Your task to perform on an android device: Open the settings Image 0: 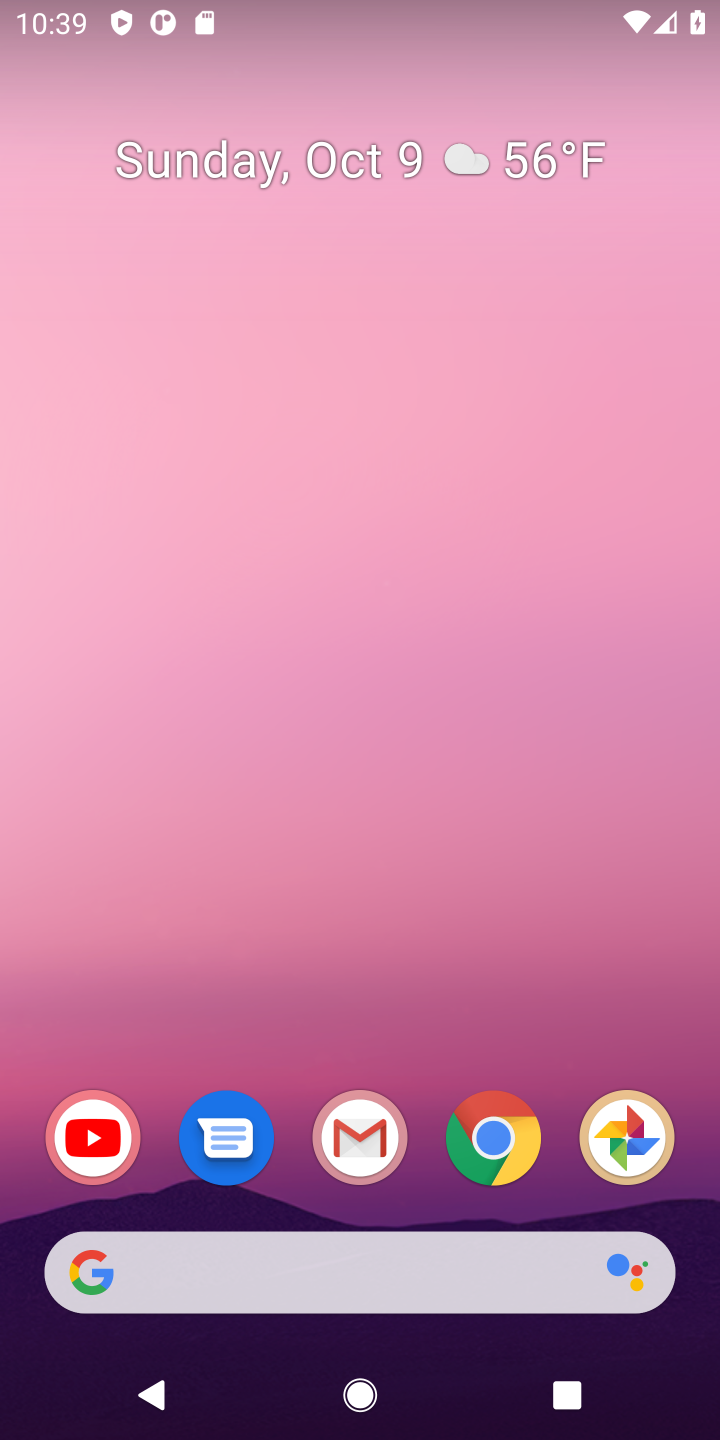
Step 0: drag from (418, 992) to (670, 24)
Your task to perform on an android device: Open the settings Image 1: 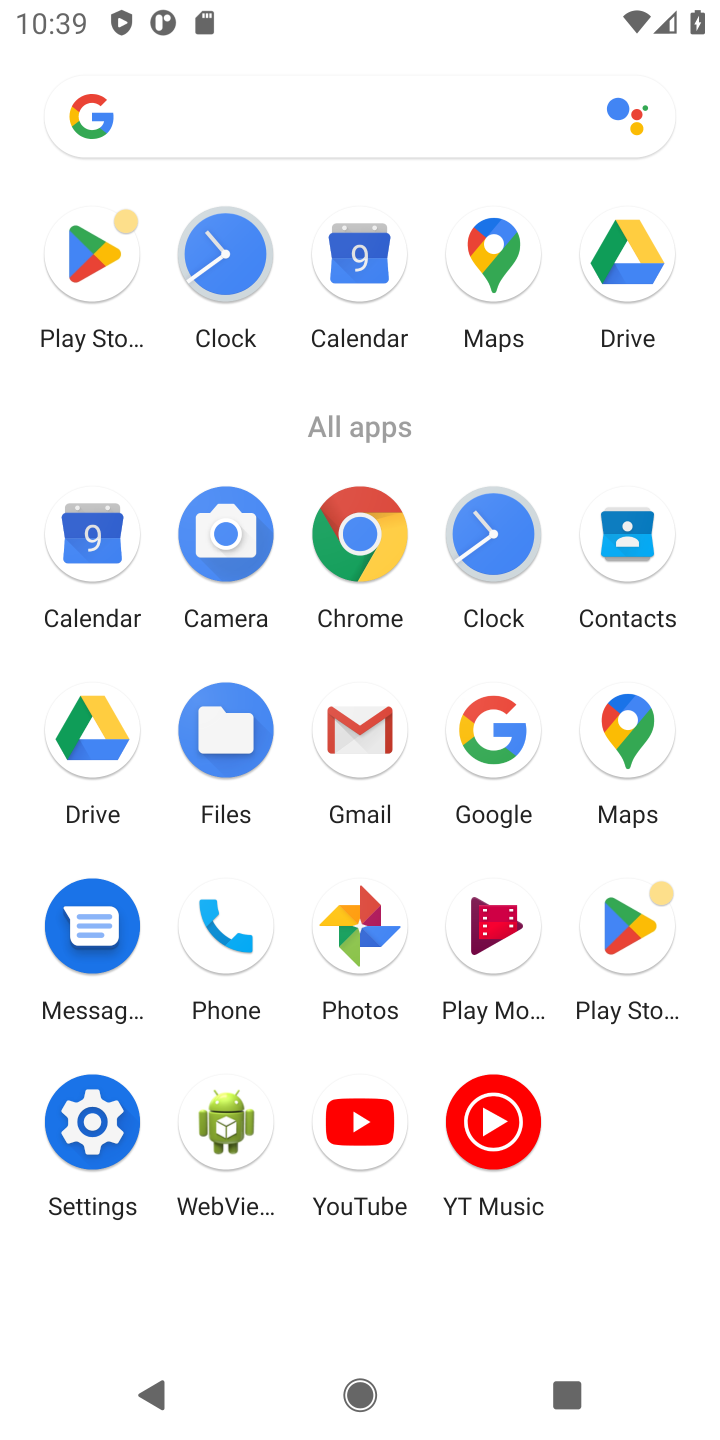
Step 1: click (87, 1113)
Your task to perform on an android device: Open the settings Image 2: 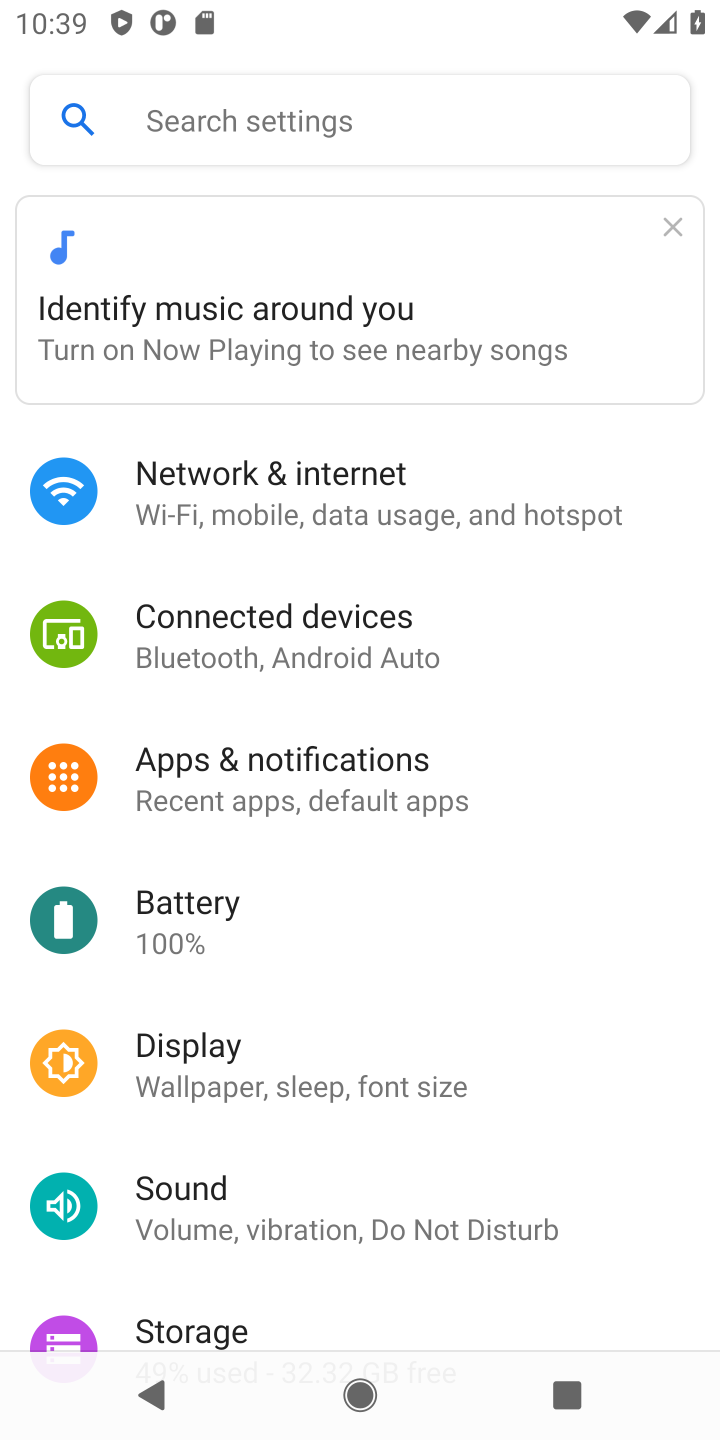
Step 2: task complete